Your task to perform on an android device: toggle translation in the chrome app Image 0: 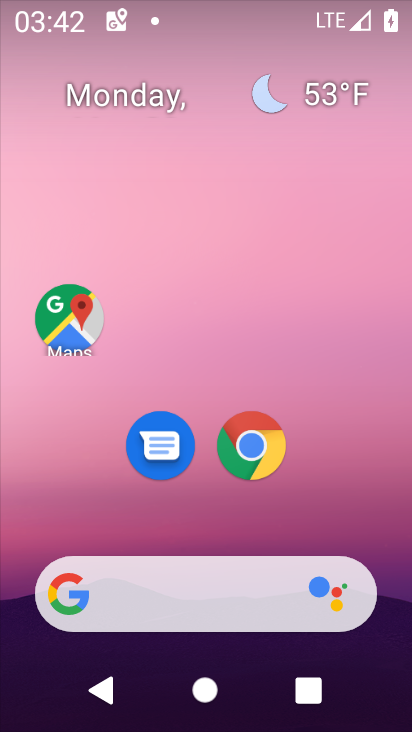
Step 0: drag from (191, 541) to (196, 99)
Your task to perform on an android device: toggle translation in the chrome app Image 1: 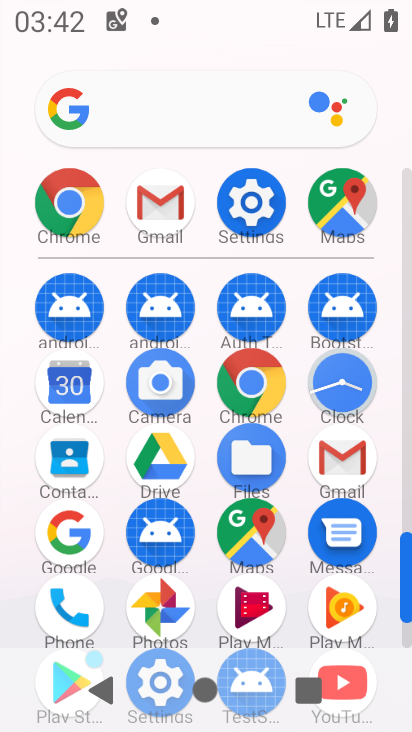
Step 1: click (262, 390)
Your task to perform on an android device: toggle translation in the chrome app Image 2: 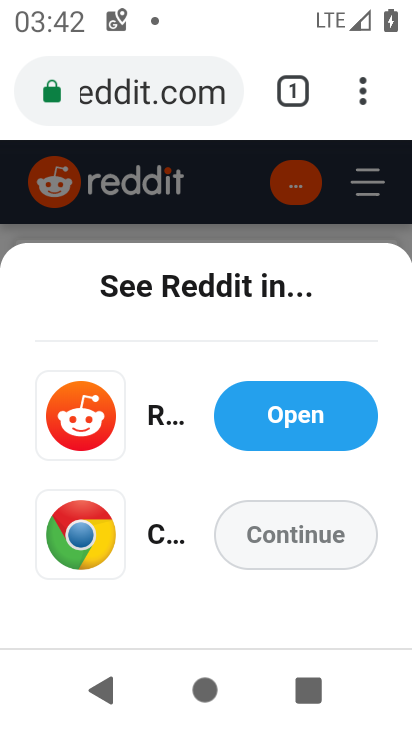
Step 2: click (364, 97)
Your task to perform on an android device: toggle translation in the chrome app Image 3: 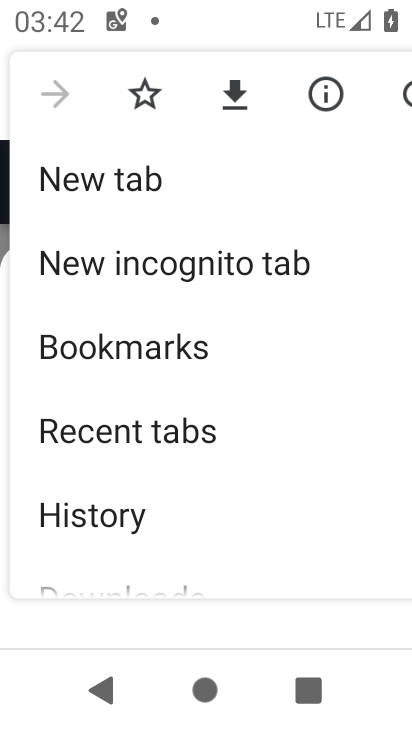
Step 3: drag from (149, 488) to (174, 197)
Your task to perform on an android device: toggle translation in the chrome app Image 4: 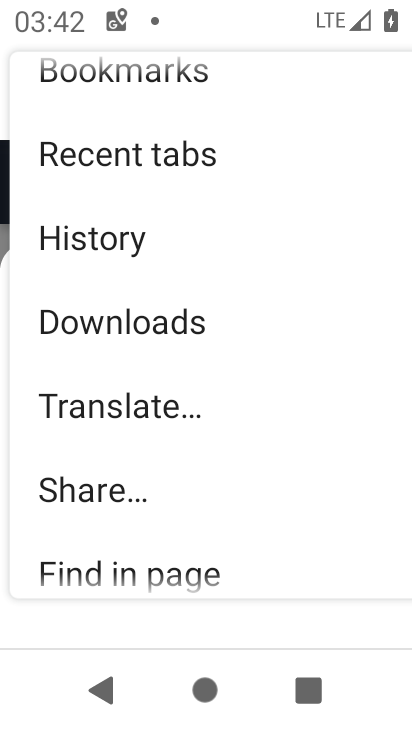
Step 4: drag from (116, 564) to (173, 327)
Your task to perform on an android device: toggle translation in the chrome app Image 5: 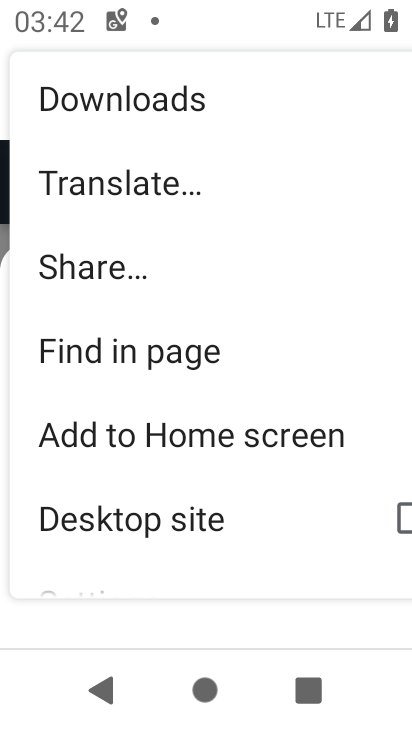
Step 5: drag from (129, 529) to (155, 422)
Your task to perform on an android device: toggle translation in the chrome app Image 6: 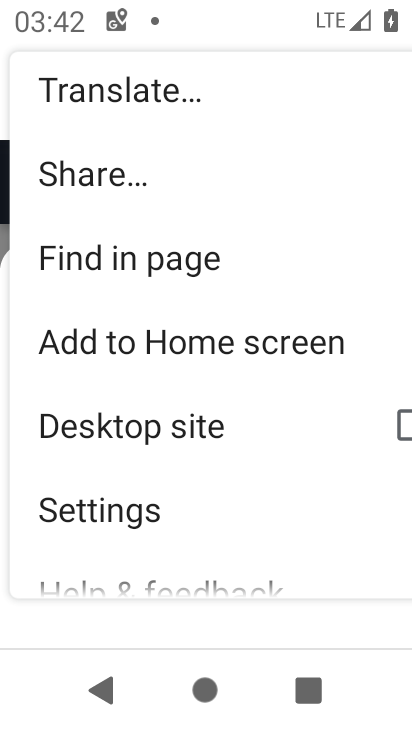
Step 6: click (114, 518)
Your task to perform on an android device: toggle translation in the chrome app Image 7: 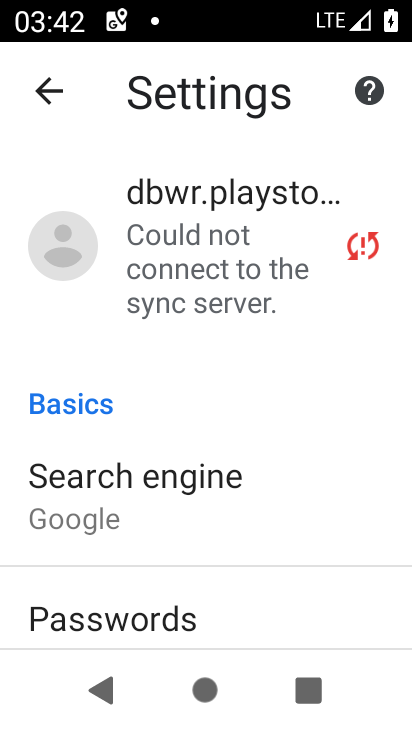
Step 7: drag from (123, 515) to (198, 194)
Your task to perform on an android device: toggle translation in the chrome app Image 8: 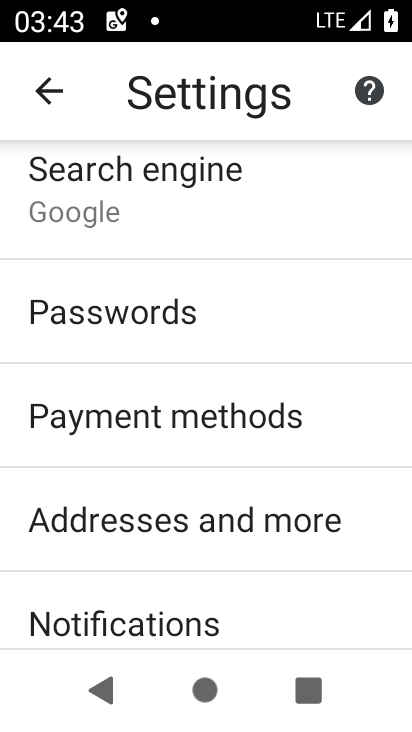
Step 8: drag from (189, 548) to (250, 276)
Your task to perform on an android device: toggle translation in the chrome app Image 9: 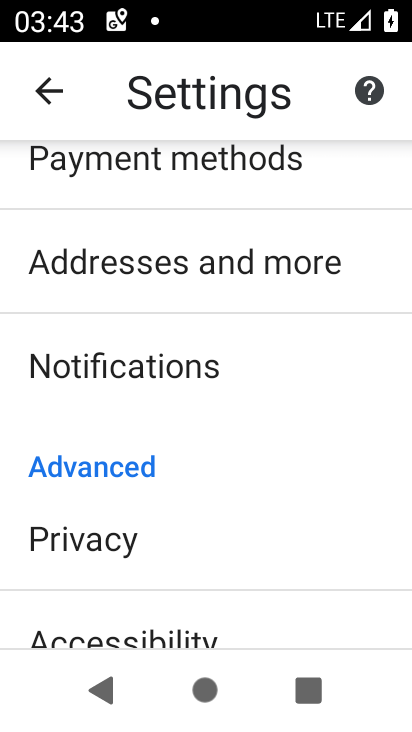
Step 9: drag from (177, 526) to (213, 285)
Your task to perform on an android device: toggle translation in the chrome app Image 10: 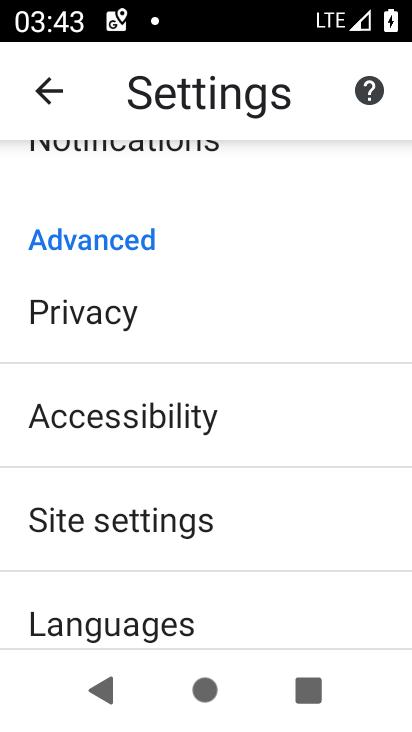
Step 10: click (139, 620)
Your task to perform on an android device: toggle translation in the chrome app Image 11: 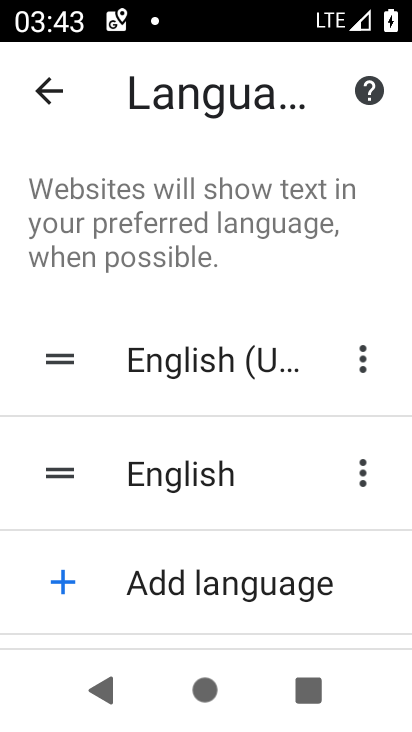
Step 11: drag from (228, 612) to (266, 267)
Your task to perform on an android device: toggle translation in the chrome app Image 12: 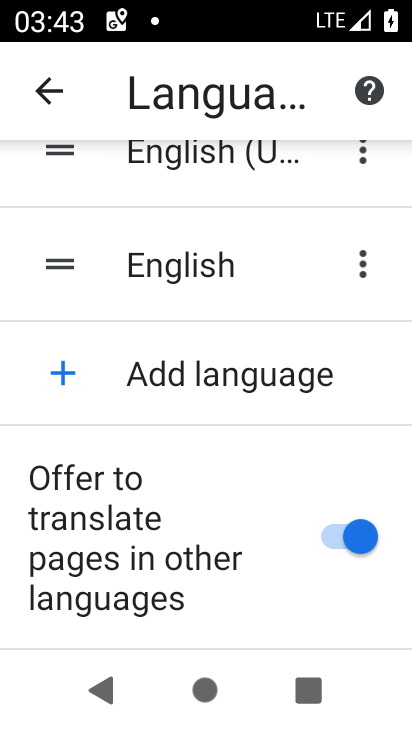
Step 12: click (310, 541)
Your task to perform on an android device: toggle translation in the chrome app Image 13: 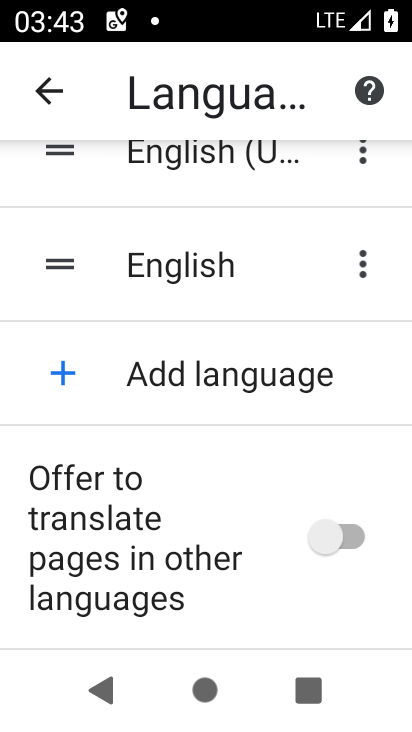
Step 13: task complete